Your task to perform on an android device: toggle javascript in the chrome app Image 0: 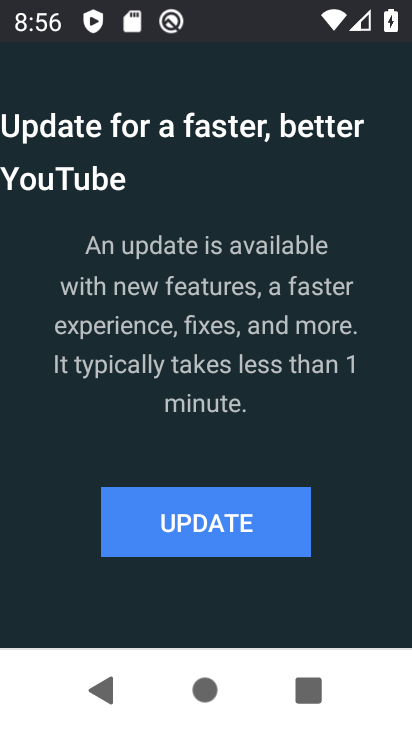
Step 0: press home button
Your task to perform on an android device: toggle javascript in the chrome app Image 1: 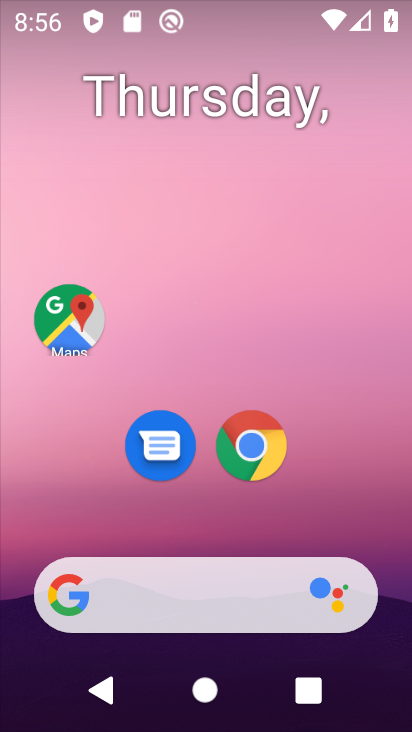
Step 1: click (257, 445)
Your task to perform on an android device: toggle javascript in the chrome app Image 2: 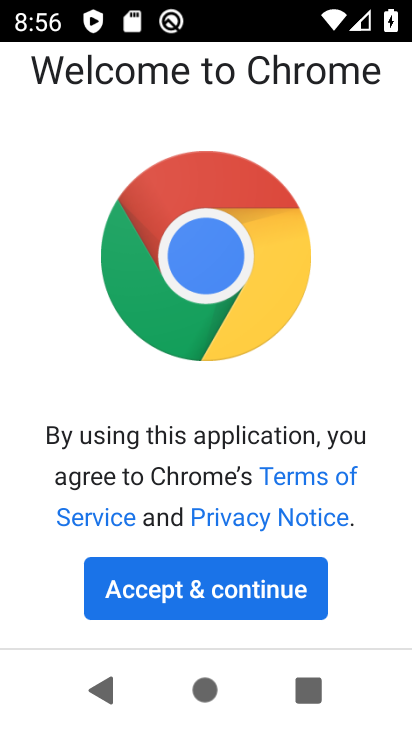
Step 2: click (205, 597)
Your task to perform on an android device: toggle javascript in the chrome app Image 3: 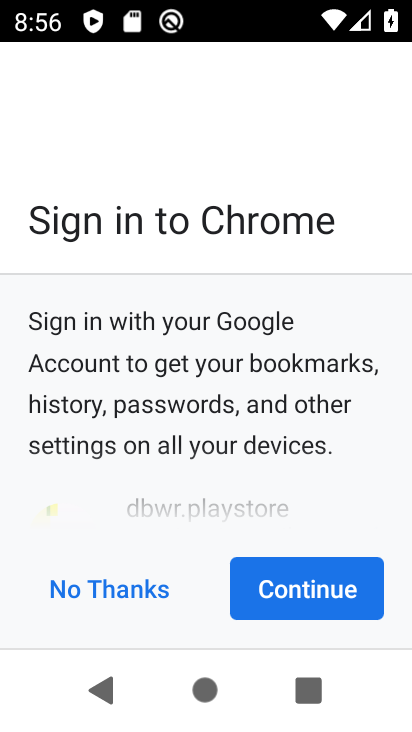
Step 3: click (152, 589)
Your task to perform on an android device: toggle javascript in the chrome app Image 4: 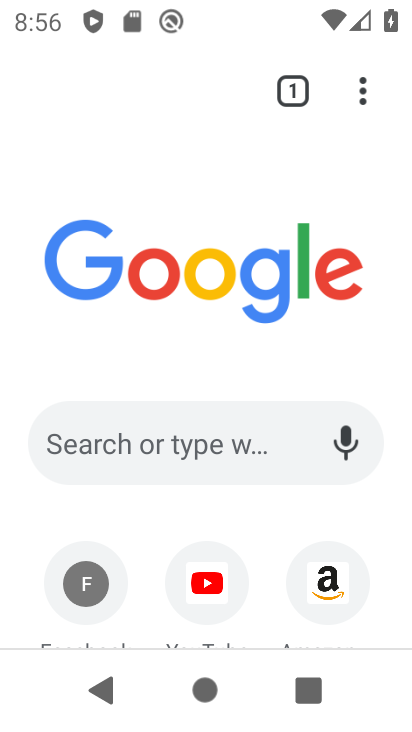
Step 4: click (360, 91)
Your task to perform on an android device: toggle javascript in the chrome app Image 5: 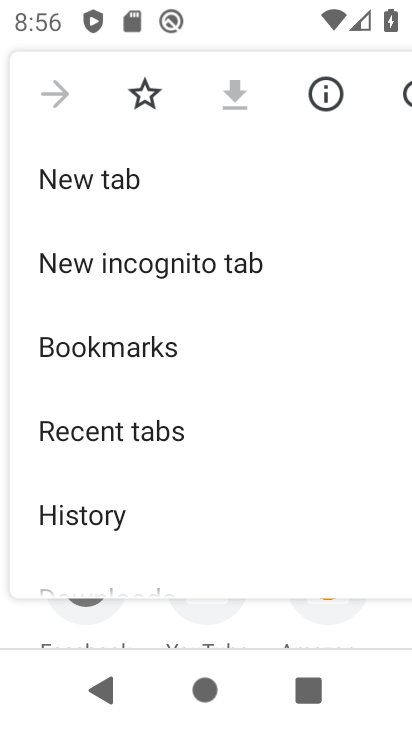
Step 5: drag from (284, 466) to (317, 18)
Your task to perform on an android device: toggle javascript in the chrome app Image 6: 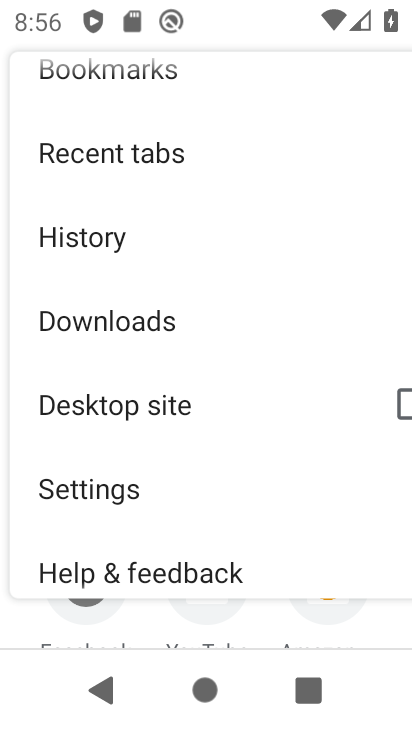
Step 6: click (97, 484)
Your task to perform on an android device: toggle javascript in the chrome app Image 7: 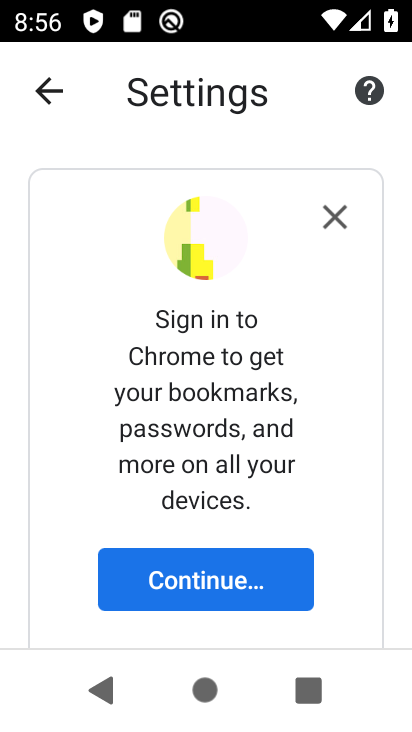
Step 7: drag from (342, 570) to (361, 18)
Your task to perform on an android device: toggle javascript in the chrome app Image 8: 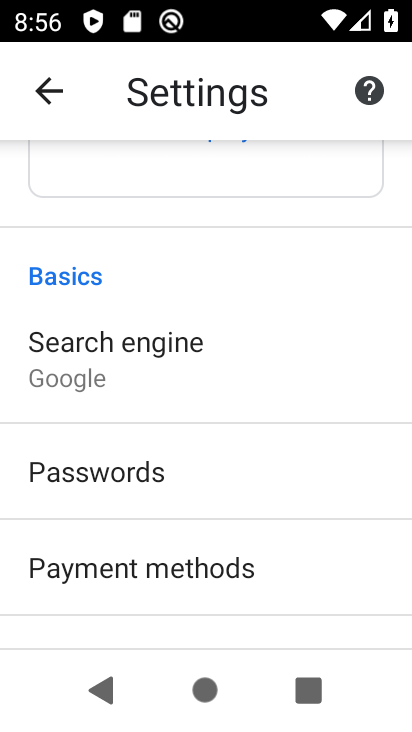
Step 8: drag from (264, 479) to (316, 62)
Your task to perform on an android device: toggle javascript in the chrome app Image 9: 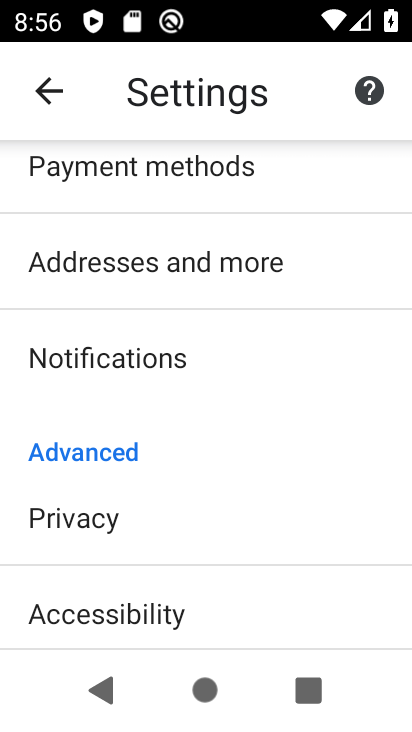
Step 9: drag from (320, 523) to (368, 44)
Your task to perform on an android device: toggle javascript in the chrome app Image 10: 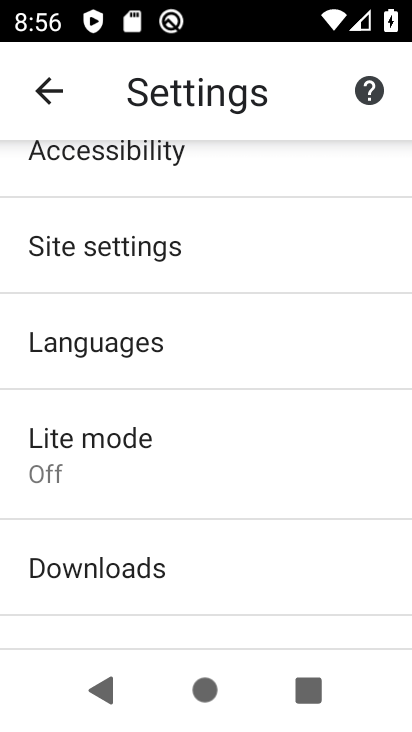
Step 10: click (152, 245)
Your task to perform on an android device: toggle javascript in the chrome app Image 11: 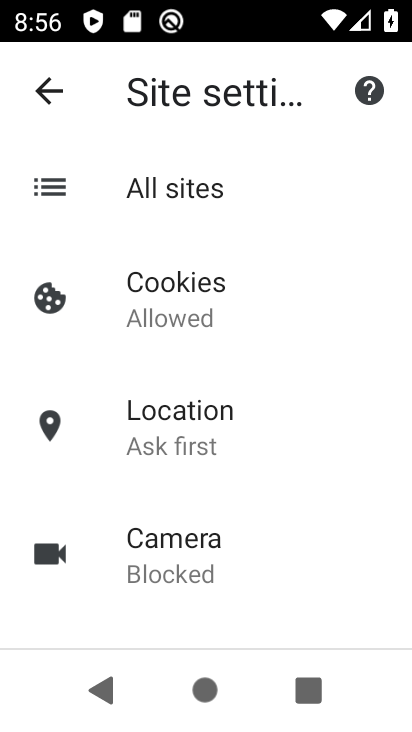
Step 11: drag from (320, 579) to (372, 1)
Your task to perform on an android device: toggle javascript in the chrome app Image 12: 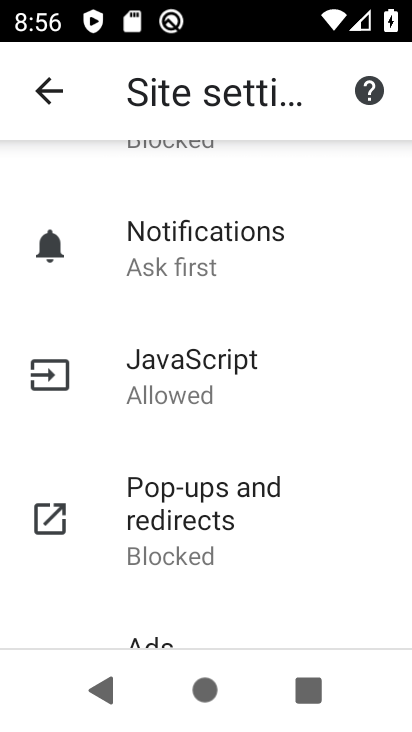
Step 12: click (163, 362)
Your task to perform on an android device: toggle javascript in the chrome app Image 13: 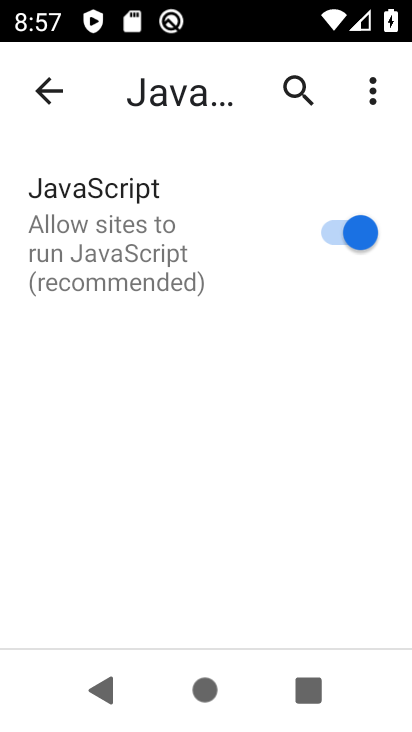
Step 13: click (341, 241)
Your task to perform on an android device: toggle javascript in the chrome app Image 14: 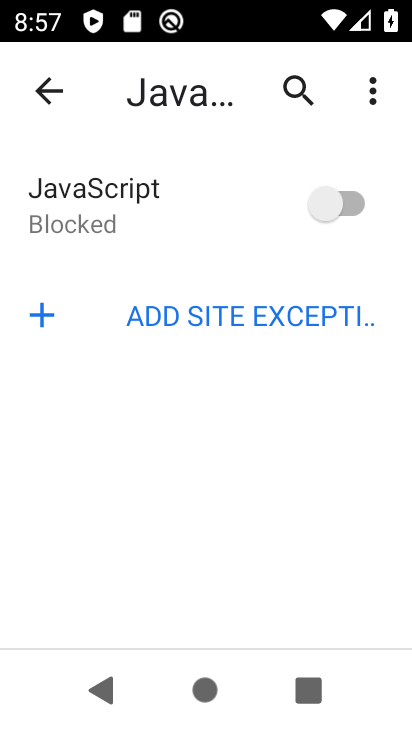
Step 14: task complete